Your task to perform on an android device: Clear the cart on amazon.com. Image 0: 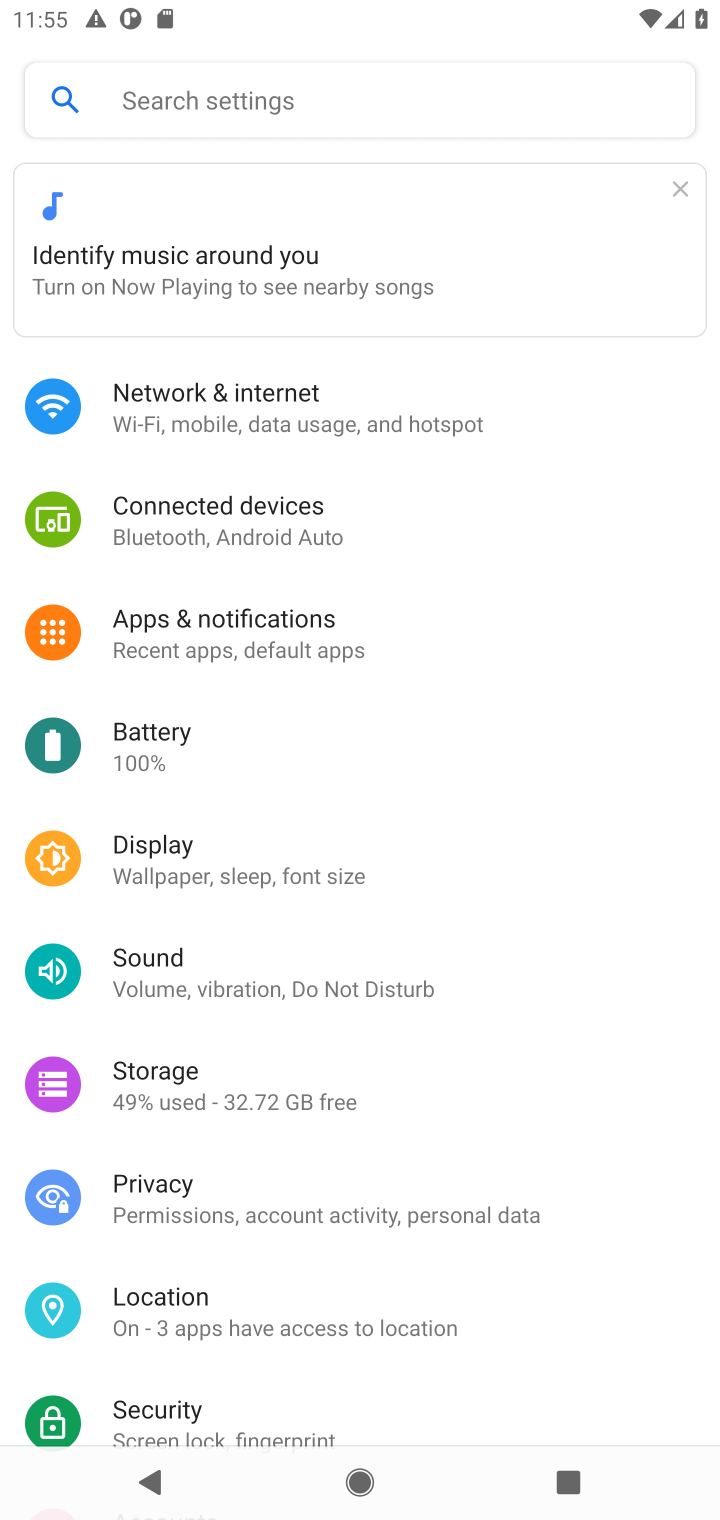
Step 0: press home button
Your task to perform on an android device: Clear the cart on amazon.com. Image 1: 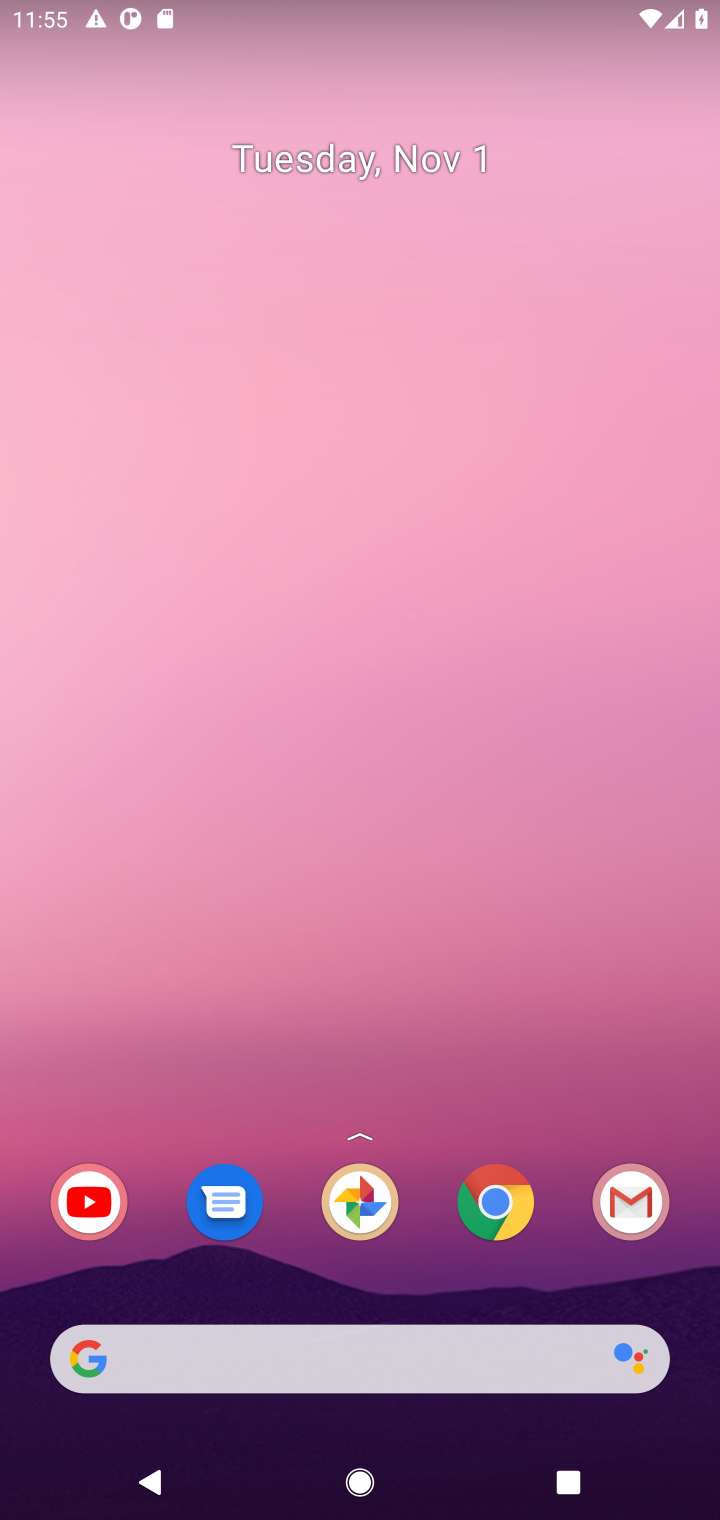
Step 1: click (515, 1225)
Your task to perform on an android device: Clear the cart on amazon.com. Image 2: 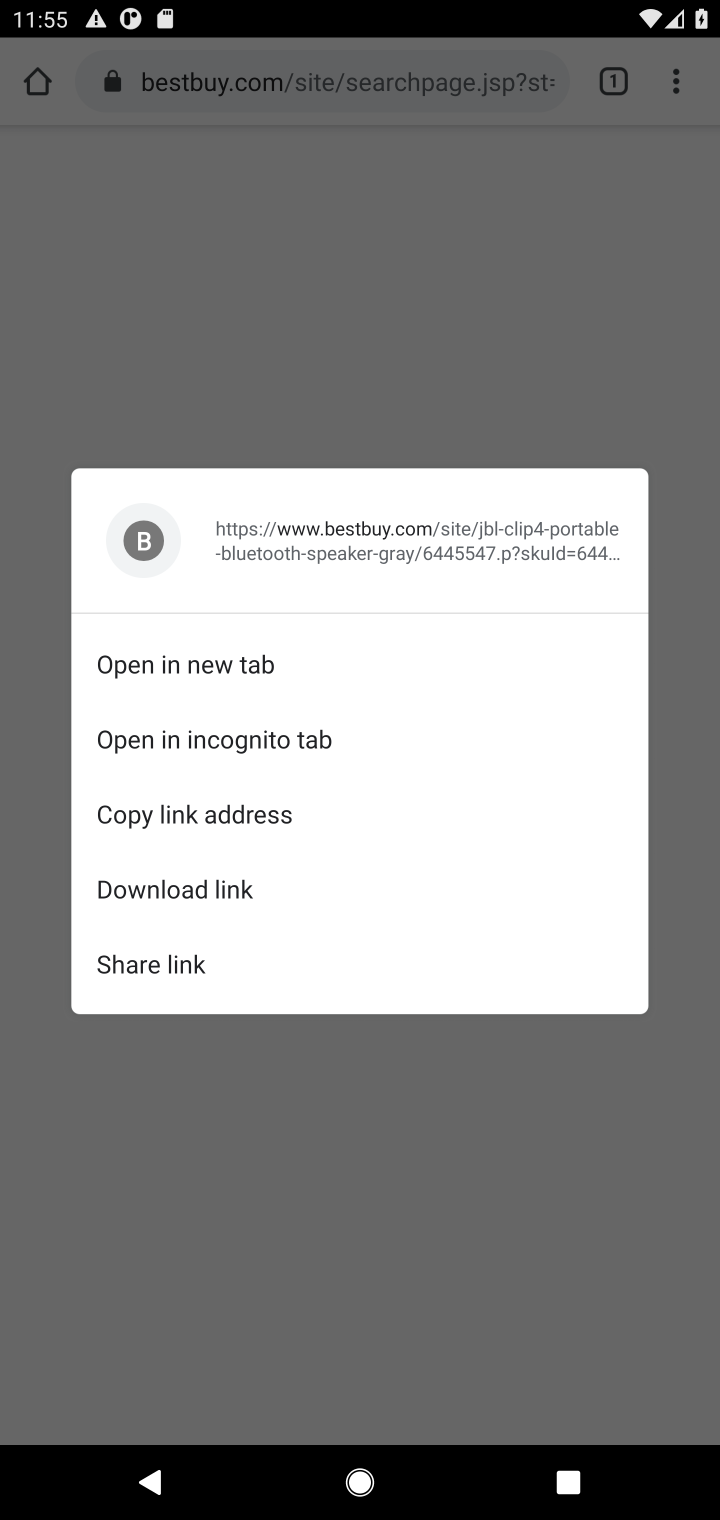
Step 2: press back button
Your task to perform on an android device: Clear the cart on amazon.com. Image 3: 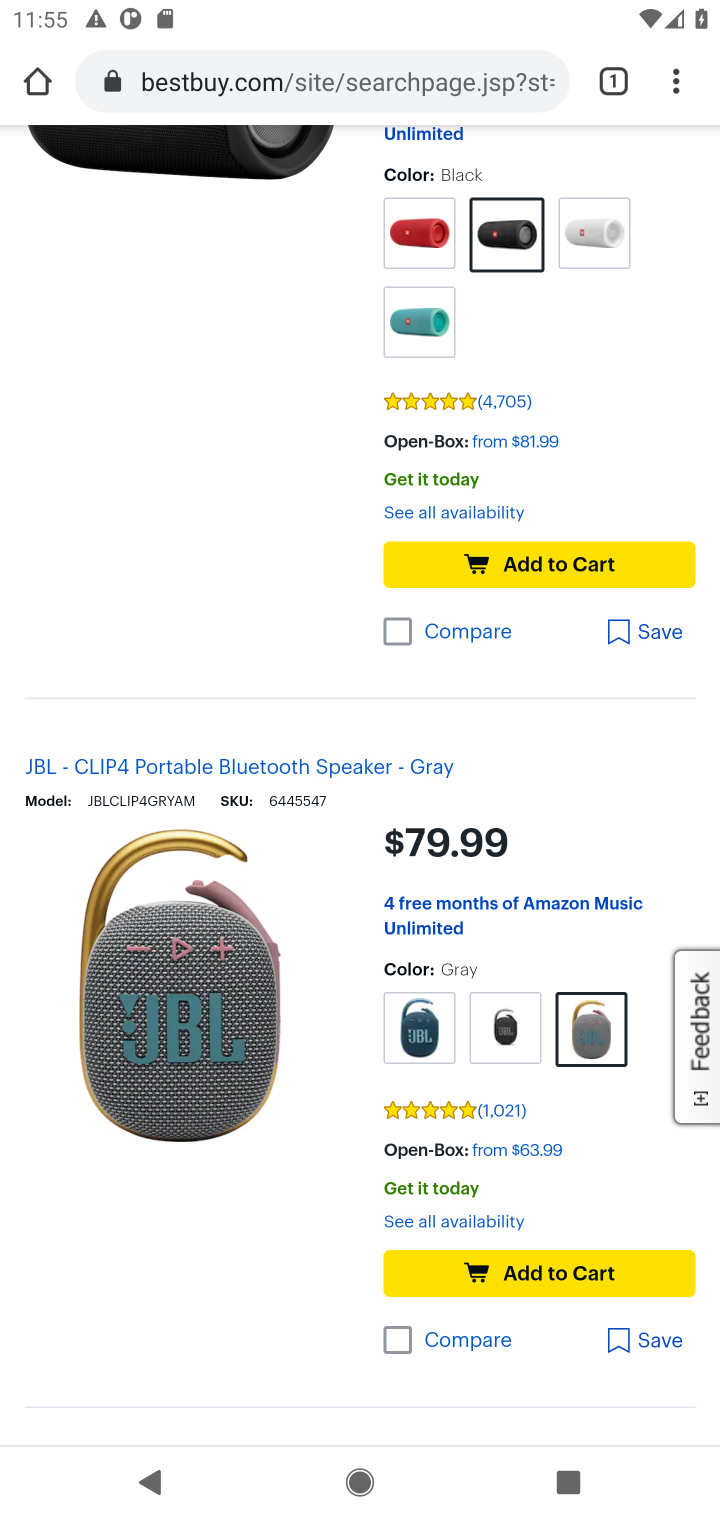
Step 3: click (335, 77)
Your task to perform on an android device: Clear the cart on amazon.com. Image 4: 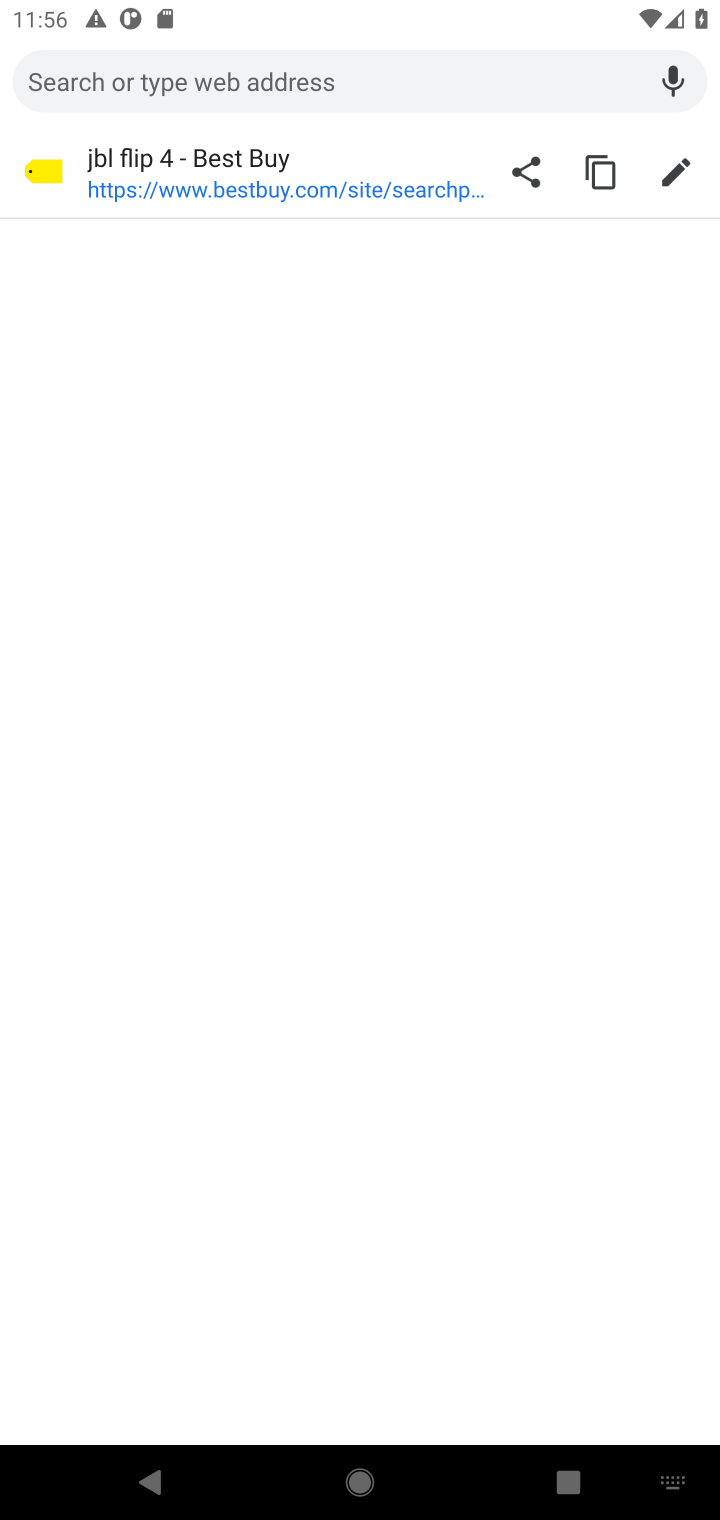
Step 4: type "amazin.com"
Your task to perform on an android device: Clear the cart on amazon.com. Image 5: 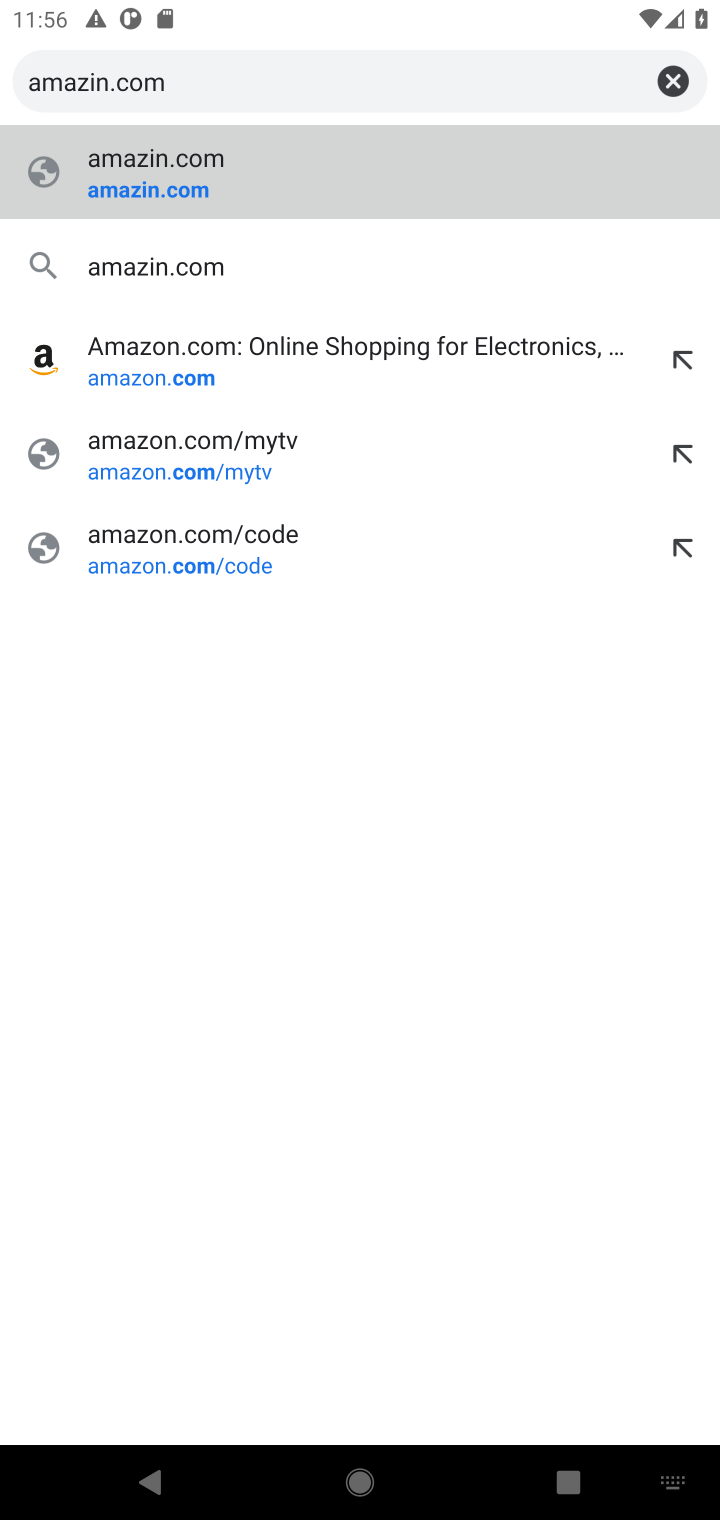
Step 5: click (370, 336)
Your task to perform on an android device: Clear the cart on amazon.com. Image 6: 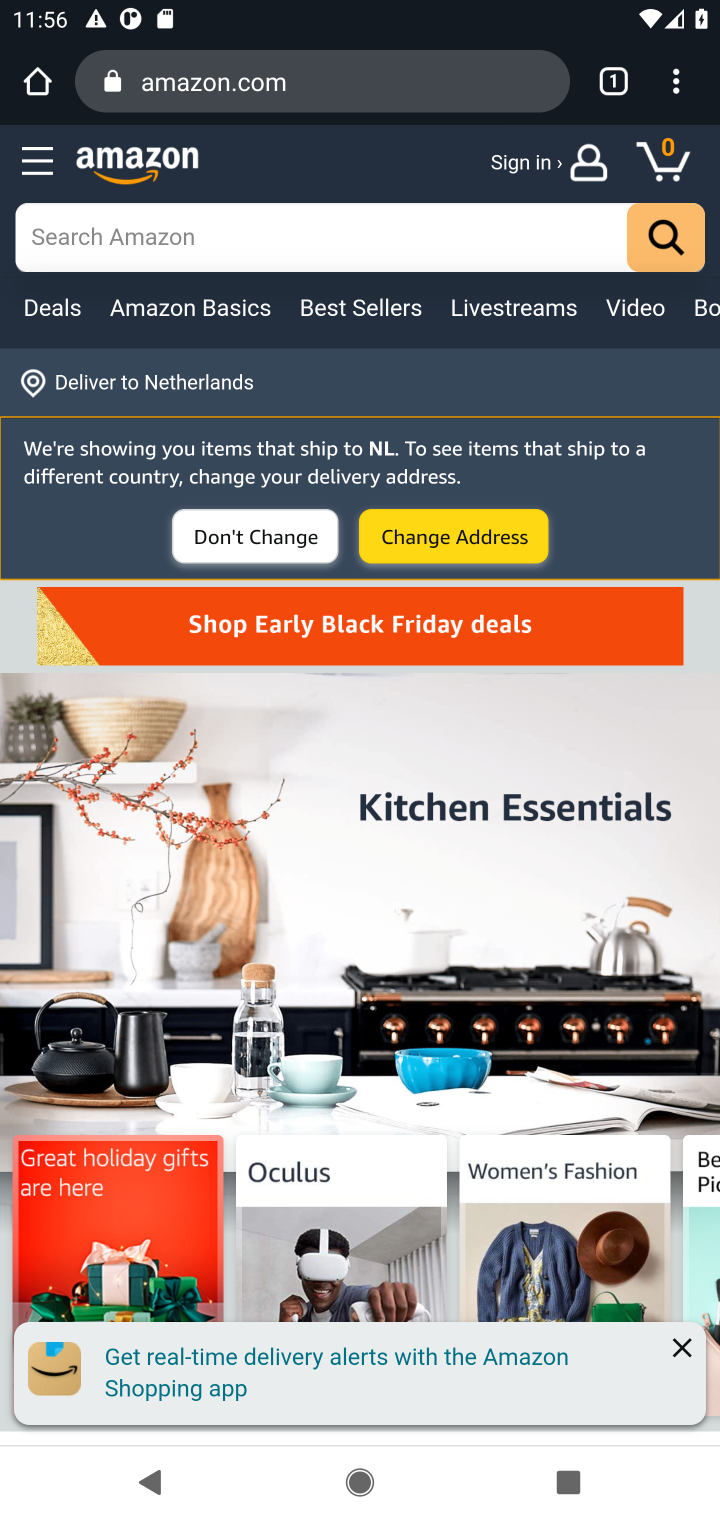
Step 6: click (663, 163)
Your task to perform on an android device: Clear the cart on amazon.com. Image 7: 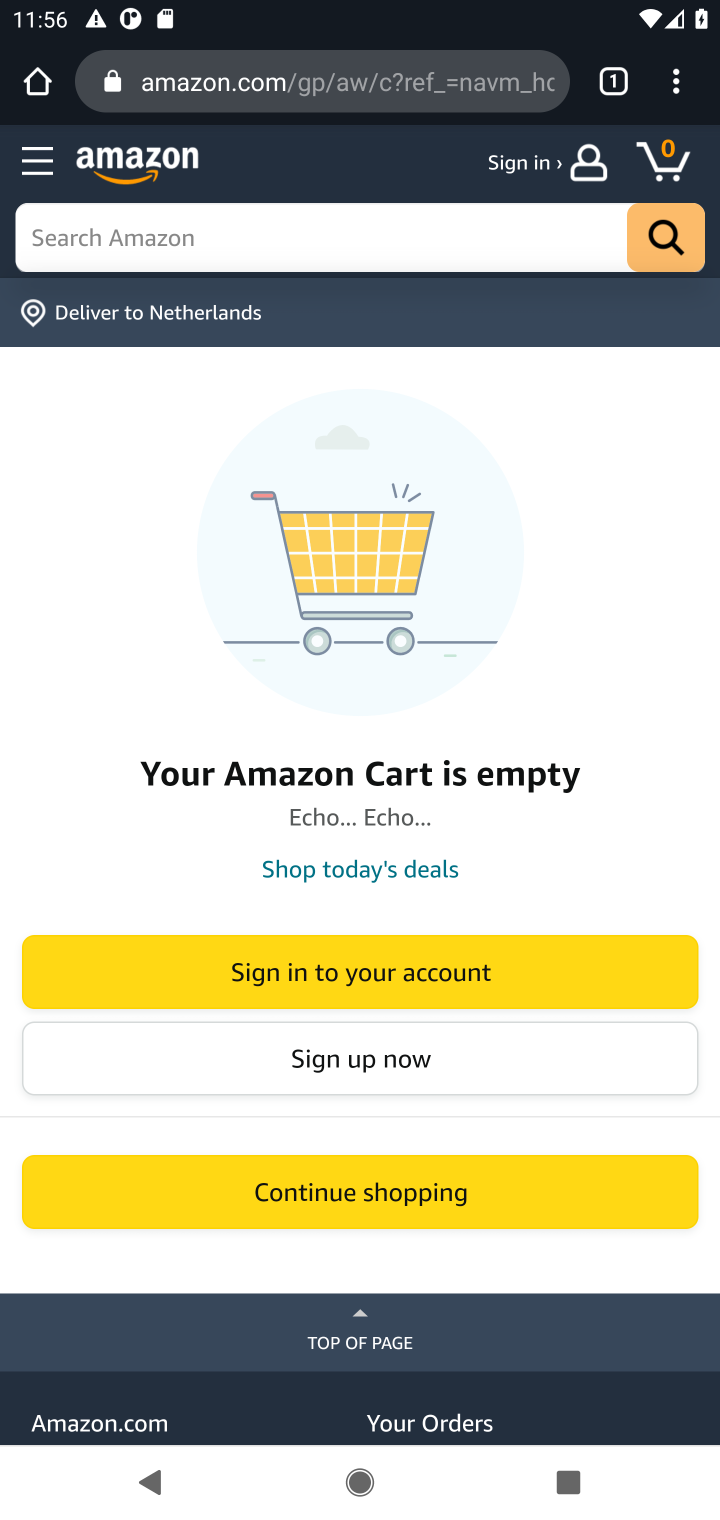
Step 7: task complete